Your task to perform on an android device: choose inbox layout in the gmail app Image 0: 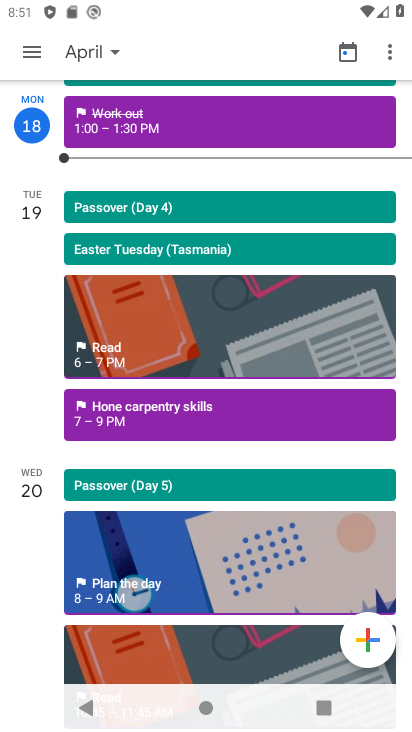
Step 0: press home button
Your task to perform on an android device: choose inbox layout in the gmail app Image 1: 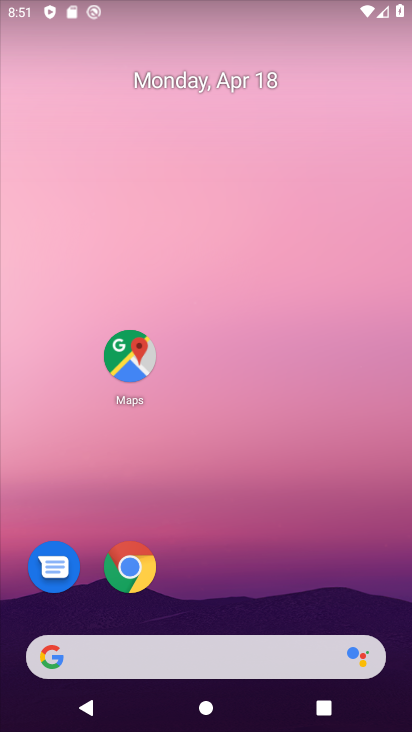
Step 1: drag from (255, 668) to (357, 300)
Your task to perform on an android device: choose inbox layout in the gmail app Image 2: 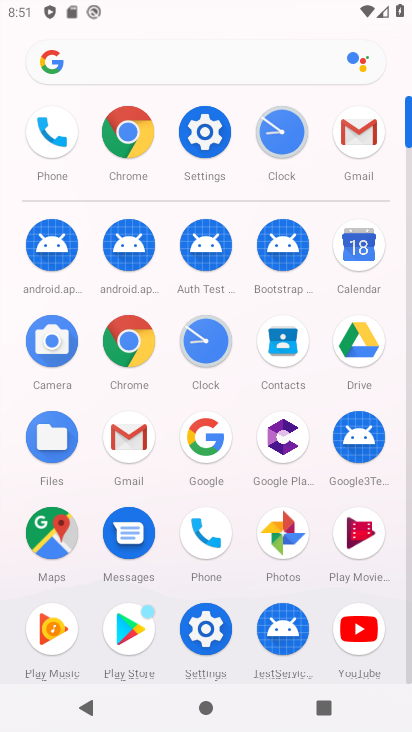
Step 2: click (134, 436)
Your task to perform on an android device: choose inbox layout in the gmail app Image 3: 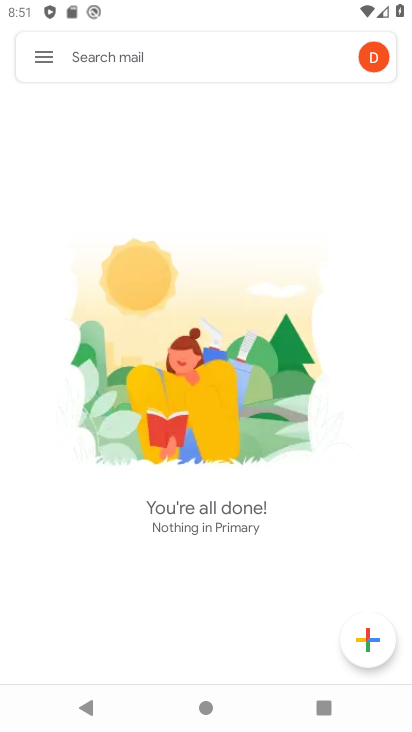
Step 3: click (47, 58)
Your task to perform on an android device: choose inbox layout in the gmail app Image 4: 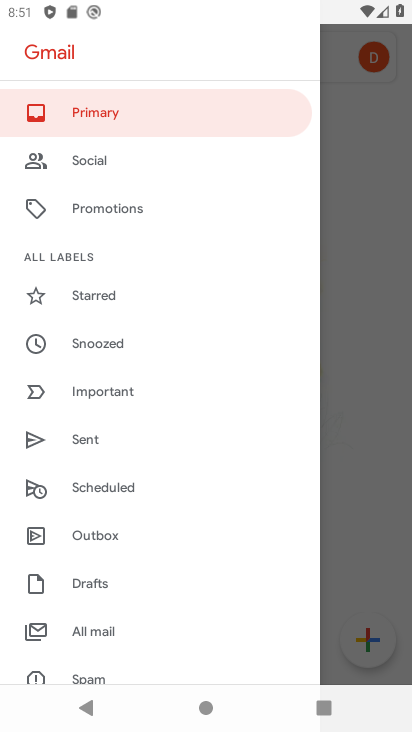
Step 4: drag from (100, 639) to (247, 457)
Your task to perform on an android device: choose inbox layout in the gmail app Image 5: 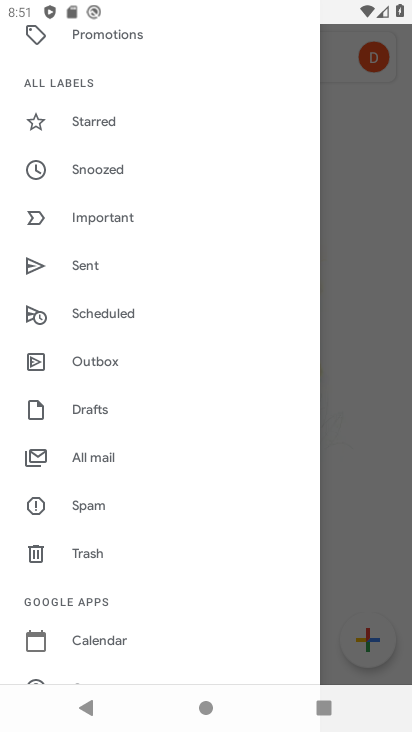
Step 5: drag from (123, 617) to (226, 439)
Your task to perform on an android device: choose inbox layout in the gmail app Image 6: 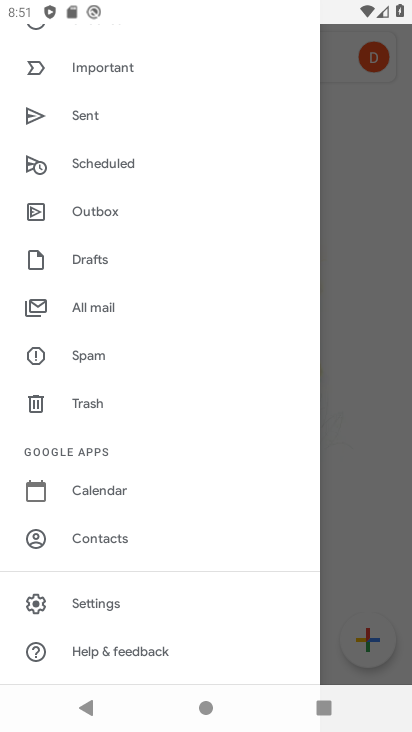
Step 6: click (97, 601)
Your task to perform on an android device: choose inbox layout in the gmail app Image 7: 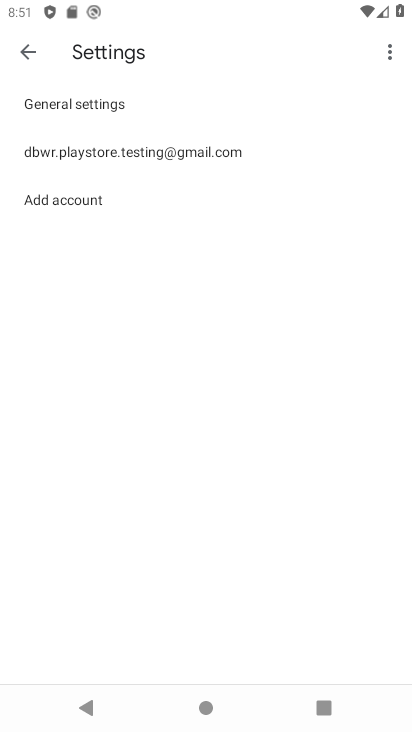
Step 7: click (165, 141)
Your task to perform on an android device: choose inbox layout in the gmail app Image 8: 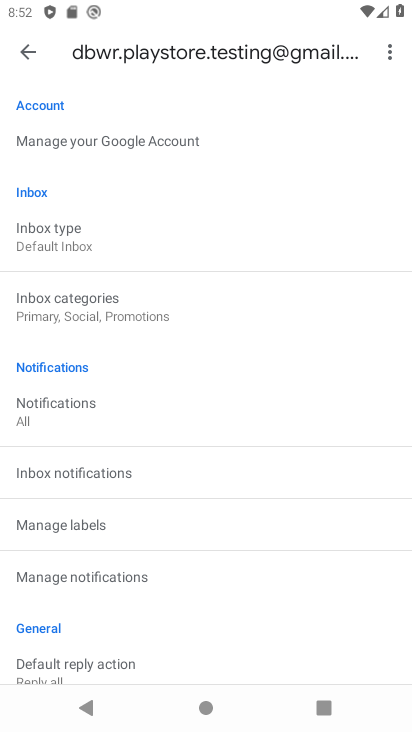
Step 8: task complete